Your task to perform on an android device: toggle javascript in the chrome app Image 0: 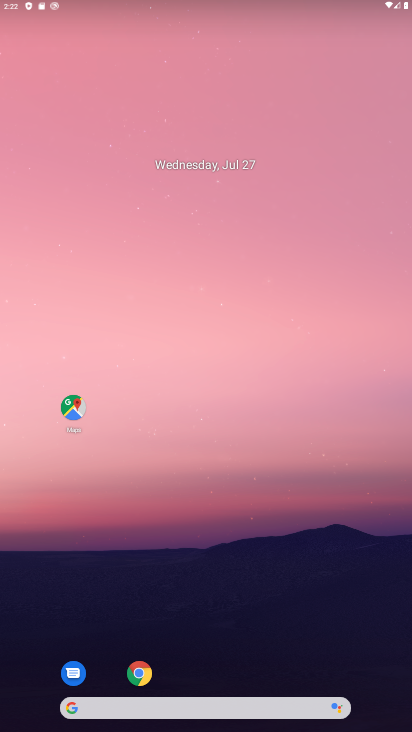
Step 0: press home button
Your task to perform on an android device: toggle javascript in the chrome app Image 1: 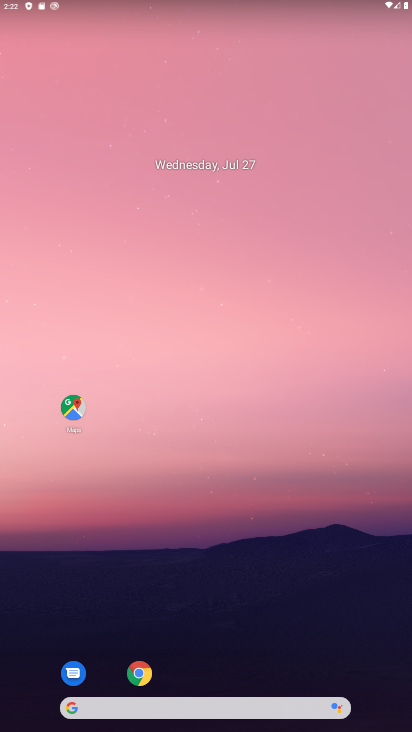
Step 1: drag from (249, 665) to (249, 175)
Your task to perform on an android device: toggle javascript in the chrome app Image 2: 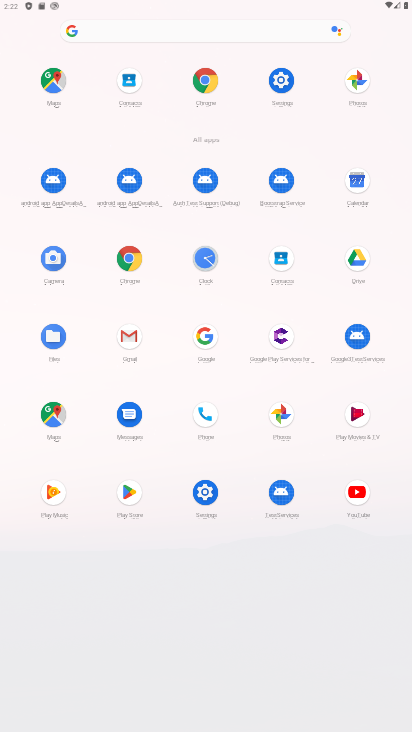
Step 2: click (202, 86)
Your task to perform on an android device: toggle javascript in the chrome app Image 3: 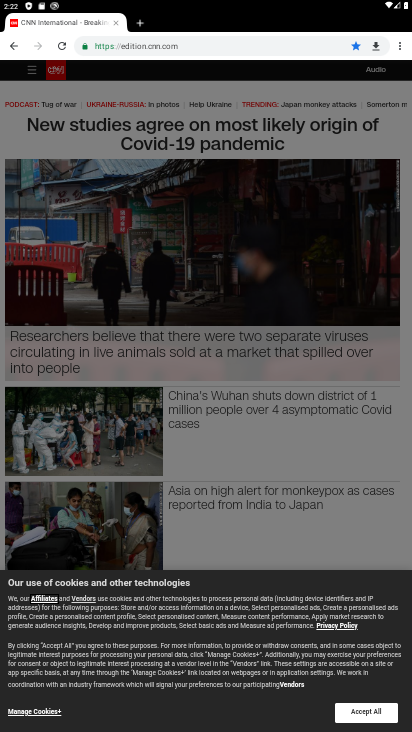
Step 3: drag from (402, 43) to (312, 285)
Your task to perform on an android device: toggle javascript in the chrome app Image 4: 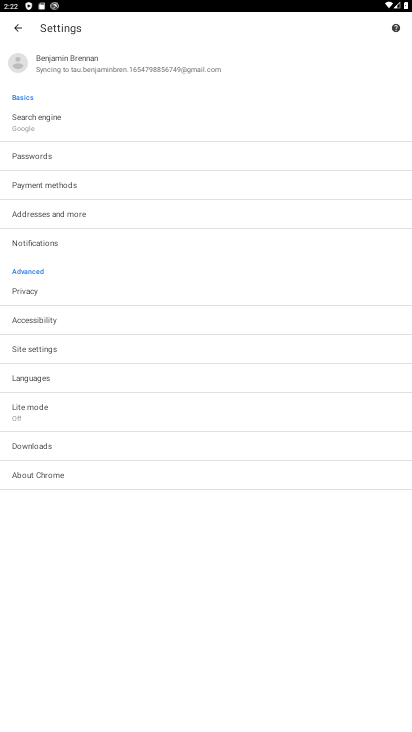
Step 4: click (38, 346)
Your task to perform on an android device: toggle javascript in the chrome app Image 5: 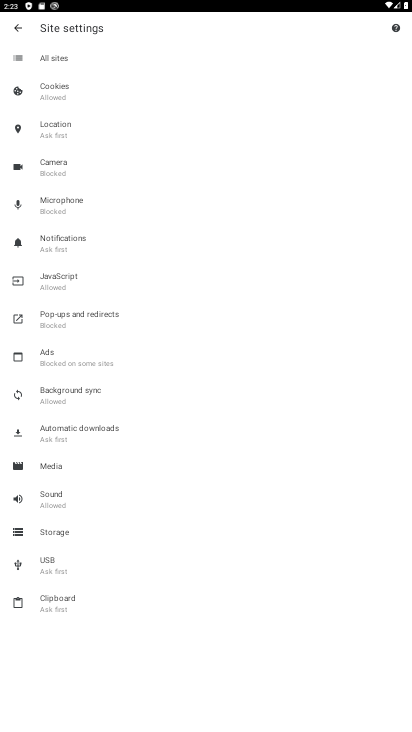
Step 5: click (43, 282)
Your task to perform on an android device: toggle javascript in the chrome app Image 6: 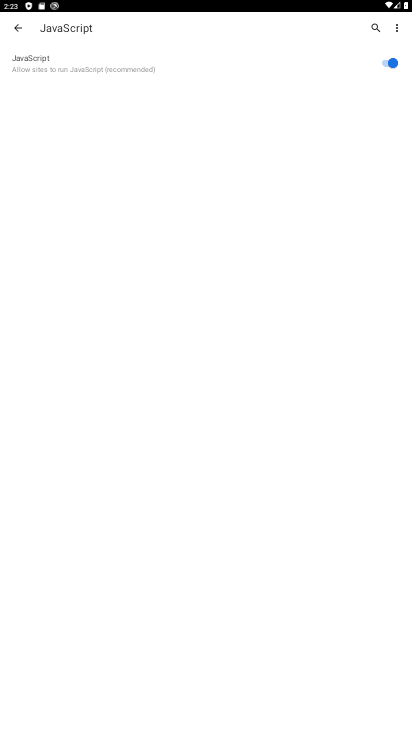
Step 6: click (394, 64)
Your task to perform on an android device: toggle javascript in the chrome app Image 7: 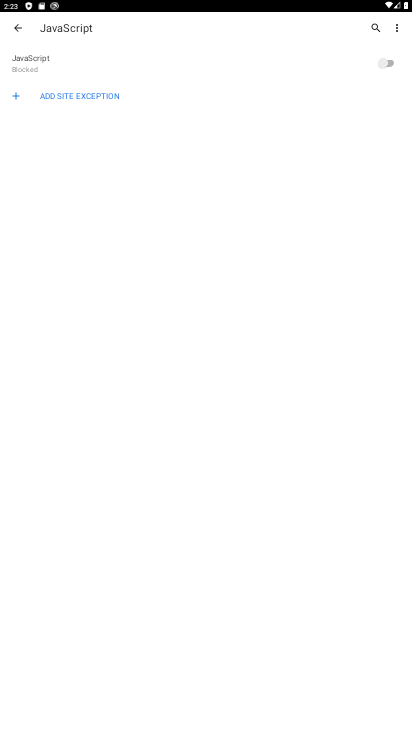
Step 7: task complete